Your task to perform on an android device: Search for a new blush on Sephora Image 0: 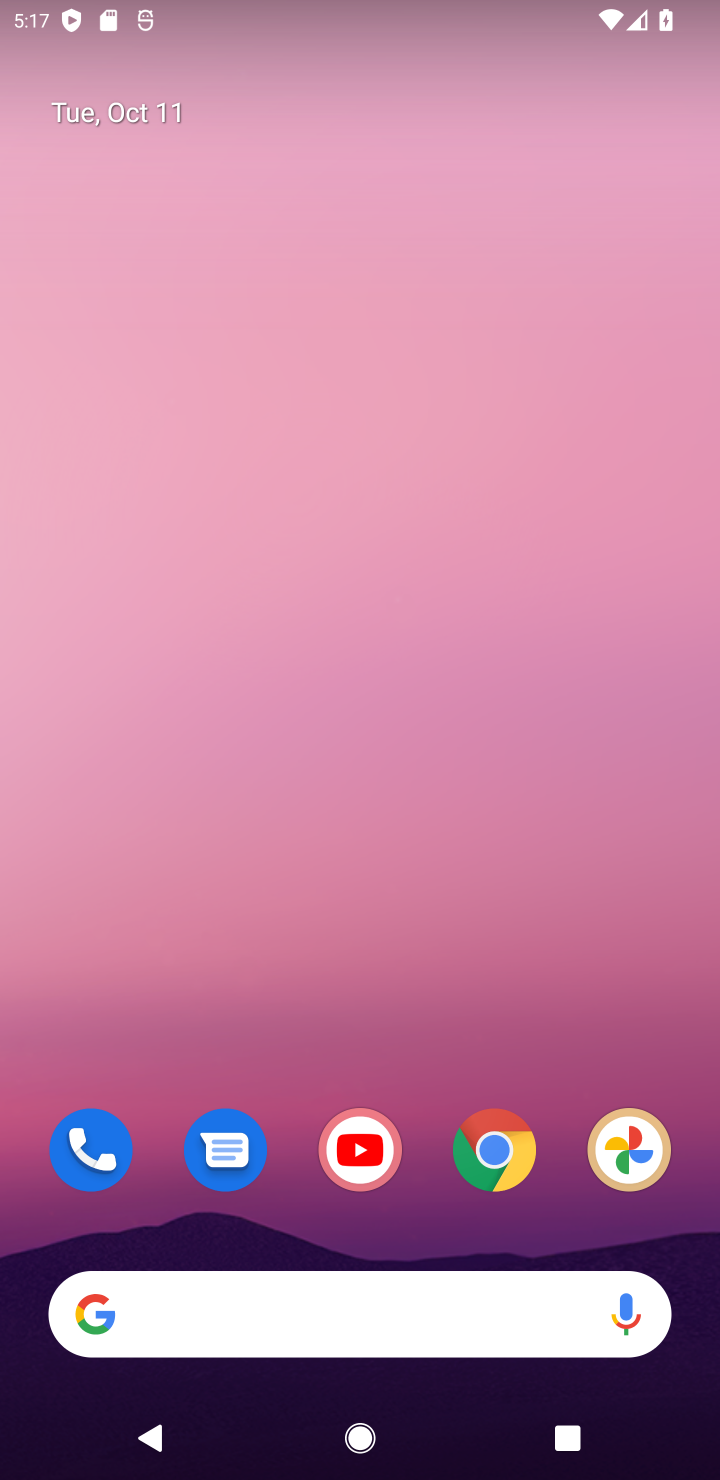
Step 0: click (500, 1157)
Your task to perform on an android device: Search for a new blush on Sephora Image 1: 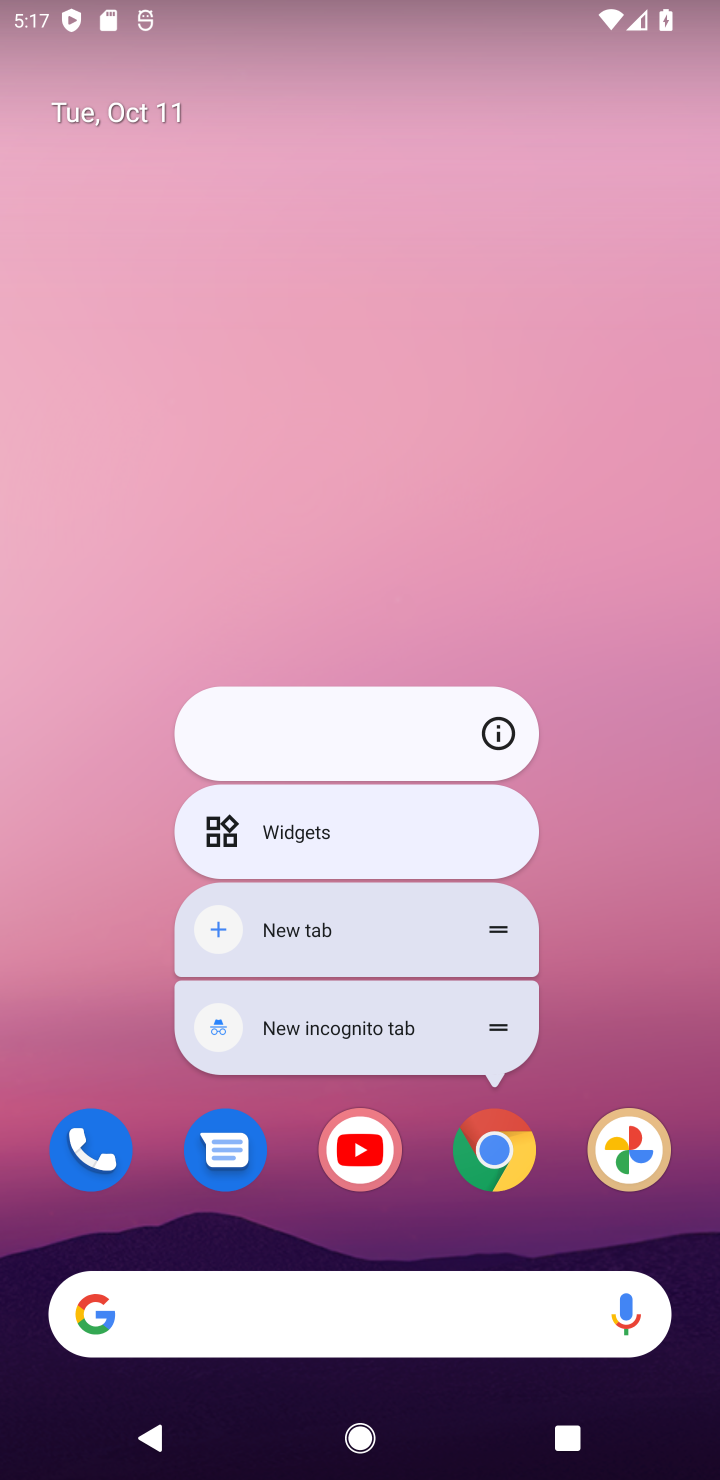
Step 1: click (500, 1157)
Your task to perform on an android device: Search for a new blush on Sephora Image 2: 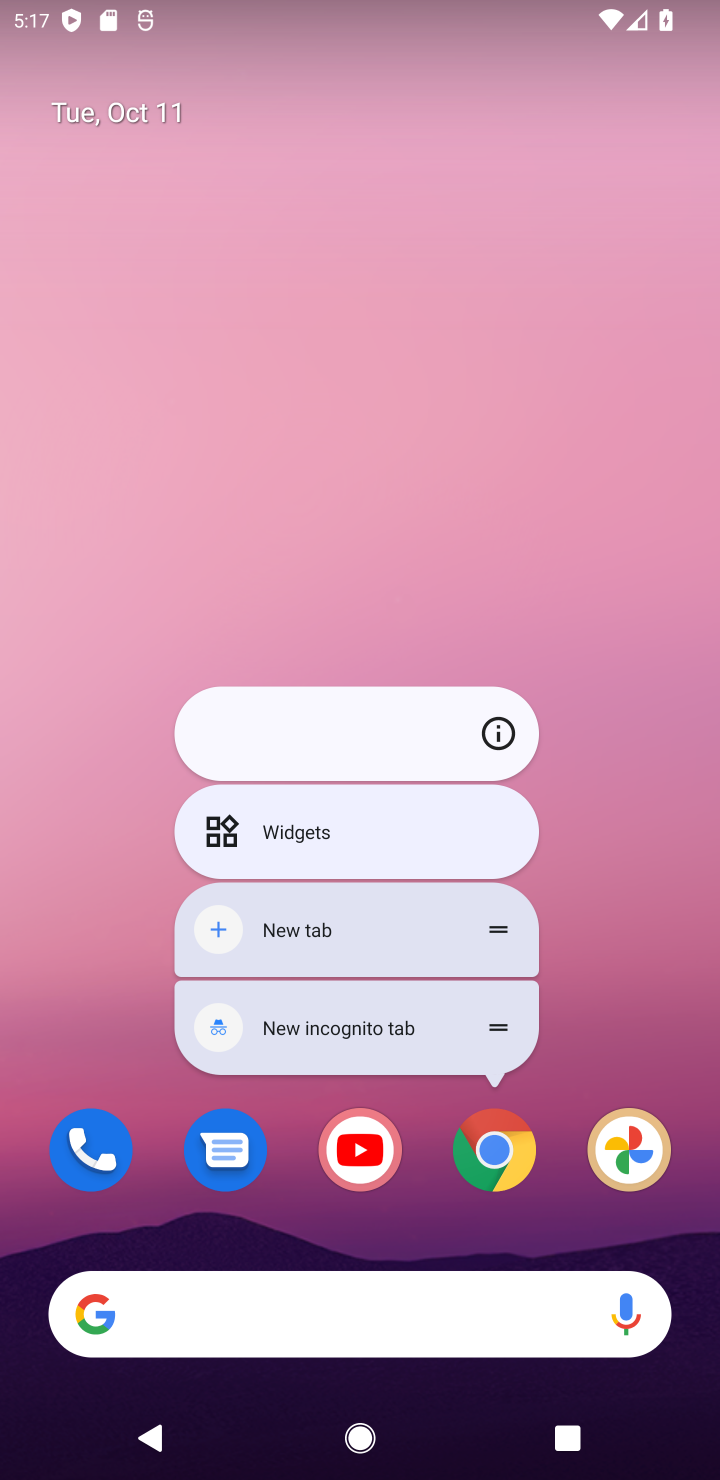
Step 2: click (500, 1157)
Your task to perform on an android device: Search for a new blush on Sephora Image 3: 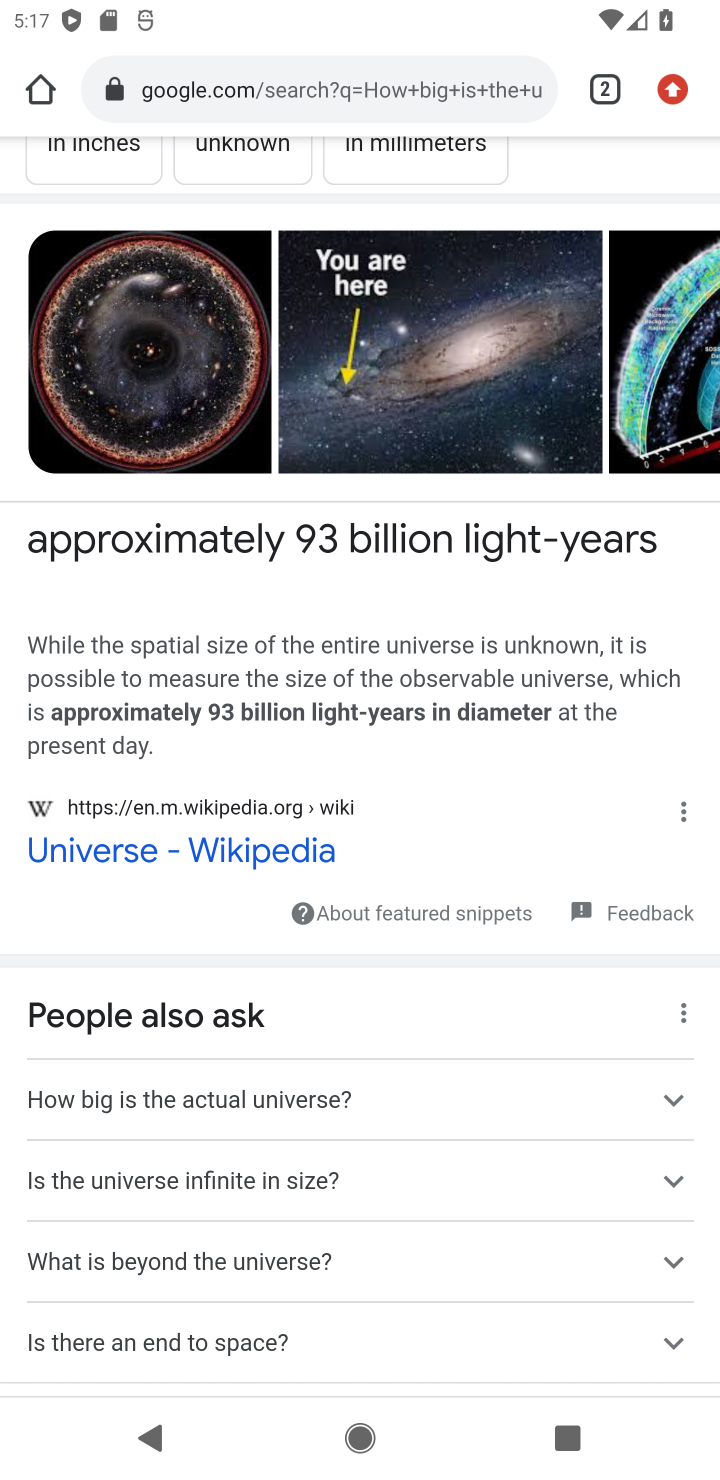
Step 3: click (295, 89)
Your task to perform on an android device: Search for a new blush on Sephora Image 4: 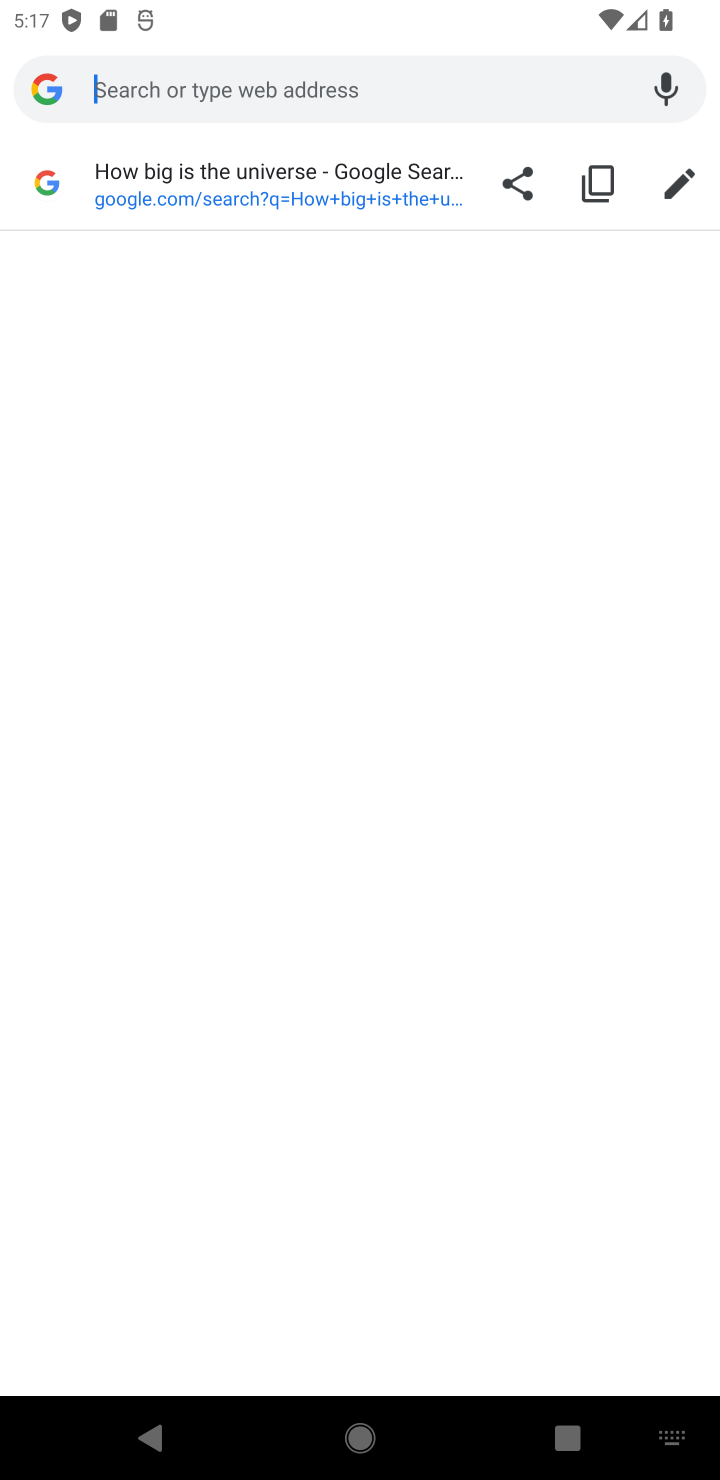
Step 4: type "new blush on Sephora"
Your task to perform on an android device: Search for a new blush on Sephora Image 5: 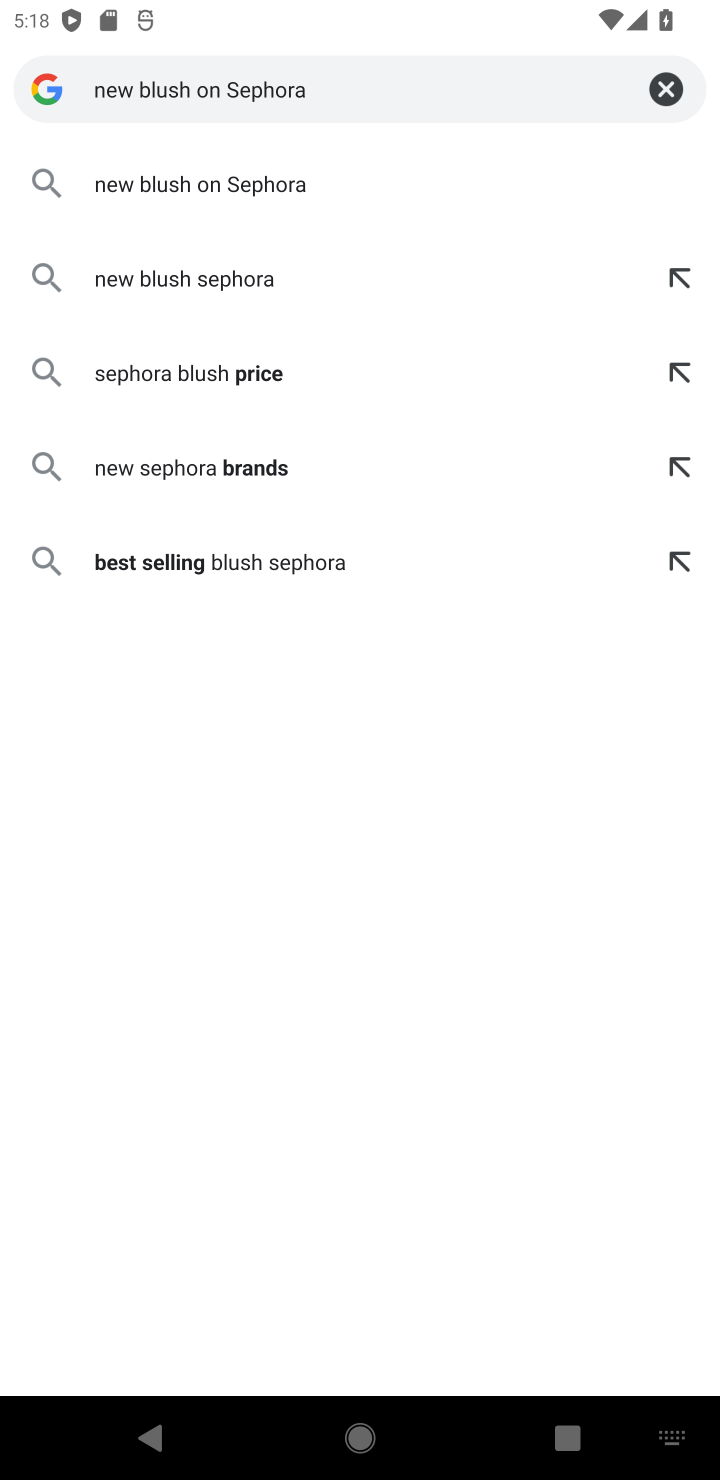
Step 5: click (214, 187)
Your task to perform on an android device: Search for a new blush on Sephora Image 6: 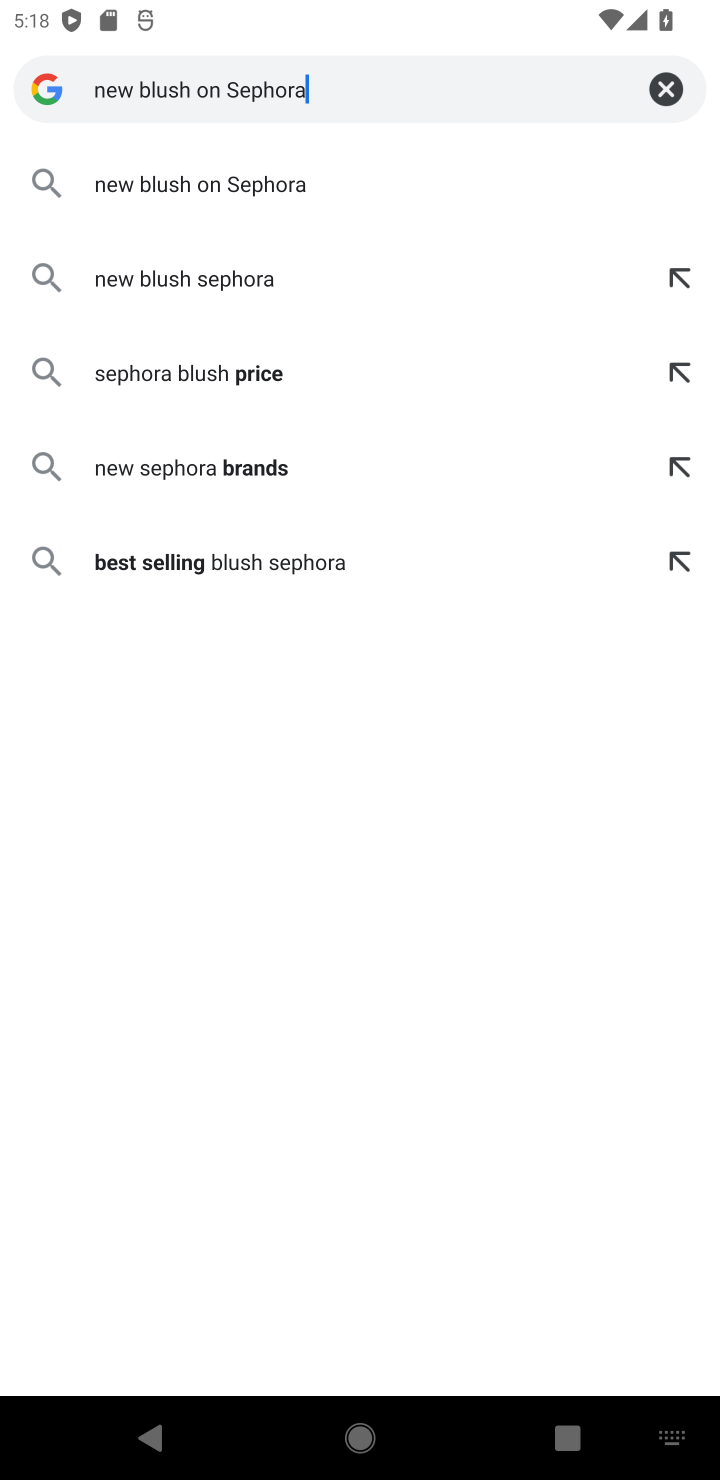
Step 6: click (200, 195)
Your task to perform on an android device: Search for a new blush on Sephora Image 7: 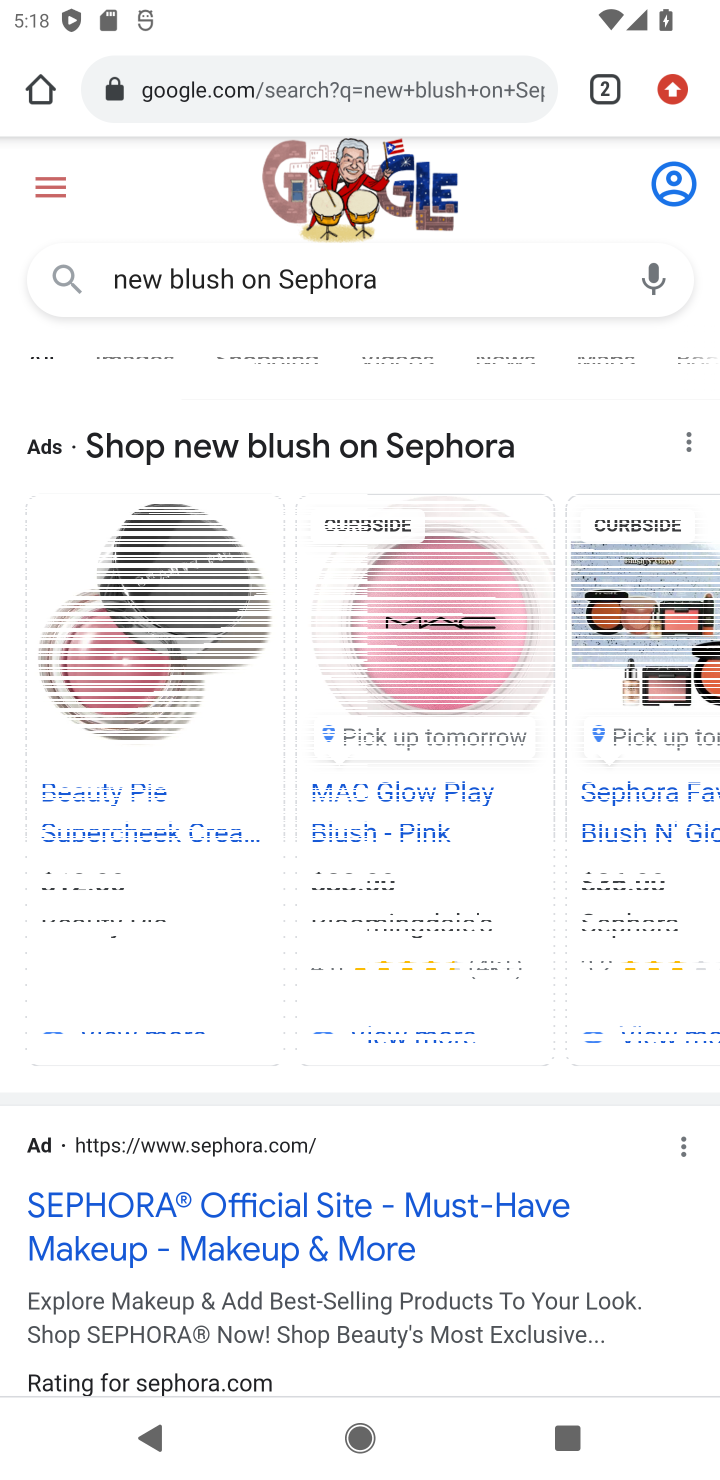
Step 7: task complete